Your task to perform on an android device: Open Wikipedia Image 0: 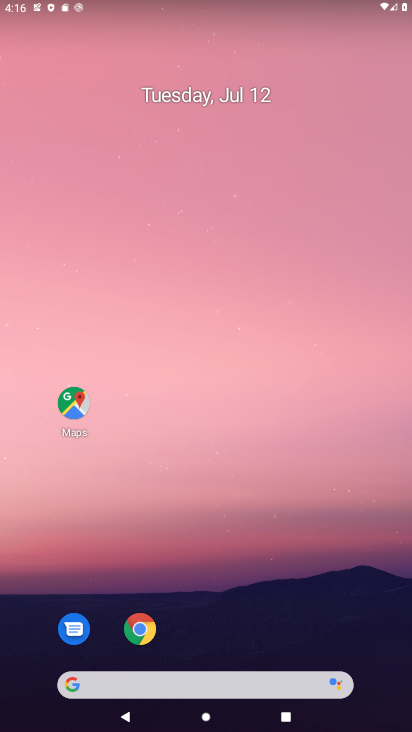
Step 0: press home button
Your task to perform on an android device: Open Wikipedia Image 1: 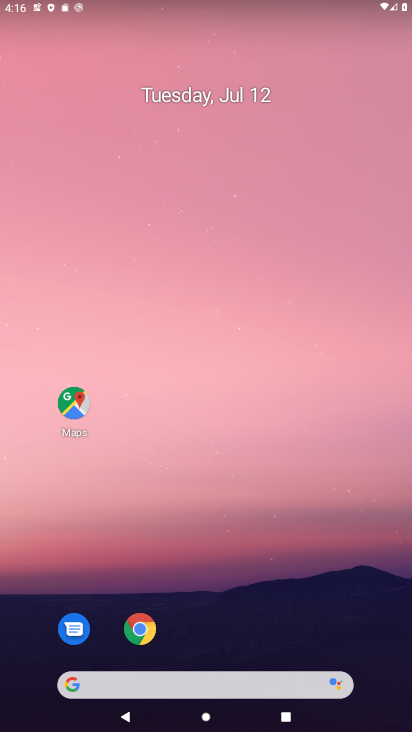
Step 1: click (68, 691)
Your task to perform on an android device: Open Wikipedia Image 2: 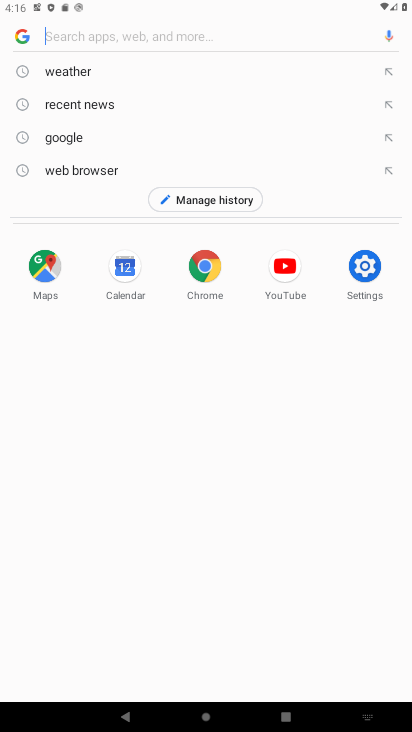
Step 2: type " Wikipedia"
Your task to perform on an android device: Open Wikipedia Image 3: 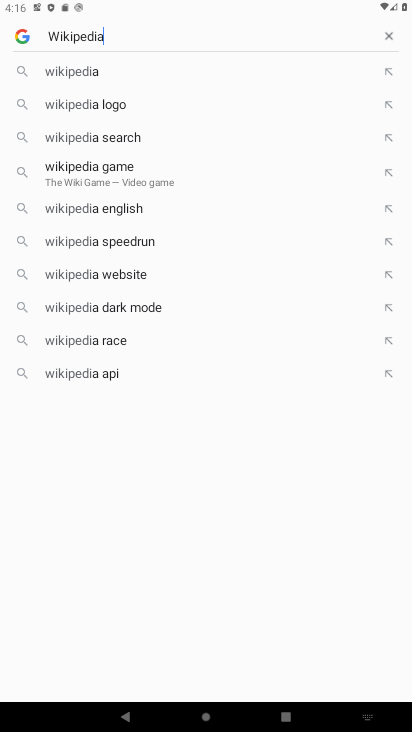
Step 3: press enter
Your task to perform on an android device: Open Wikipedia Image 4: 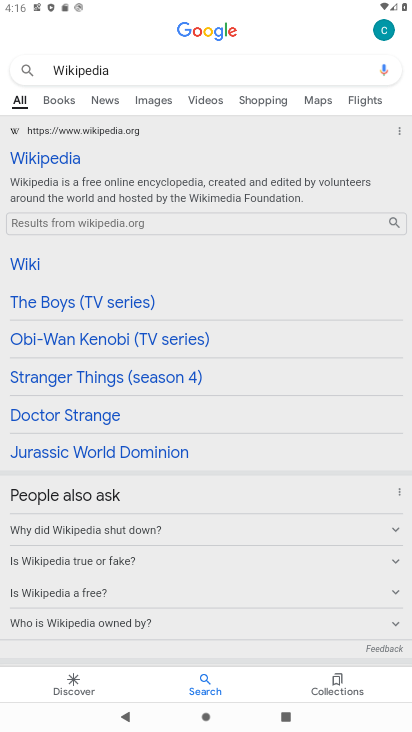
Step 4: click (33, 160)
Your task to perform on an android device: Open Wikipedia Image 5: 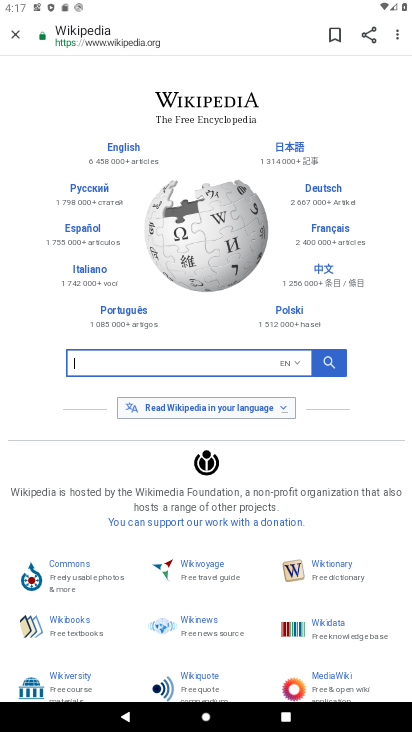
Step 5: task complete